Your task to perform on an android device: turn notification dots off Image 0: 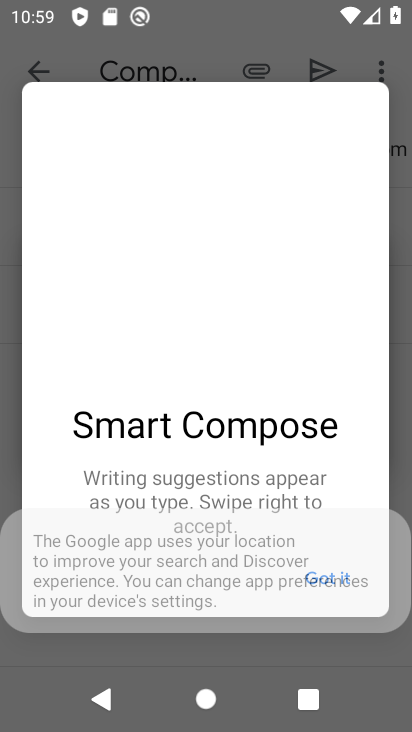
Step 0: press home button
Your task to perform on an android device: turn notification dots off Image 1: 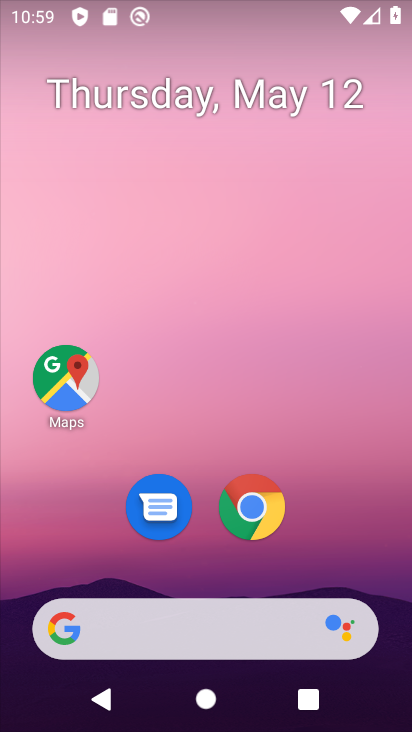
Step 1: drag from (30, 590) to (201, 87)
Your task to perform on an android device: turn notification dots off Image 2: 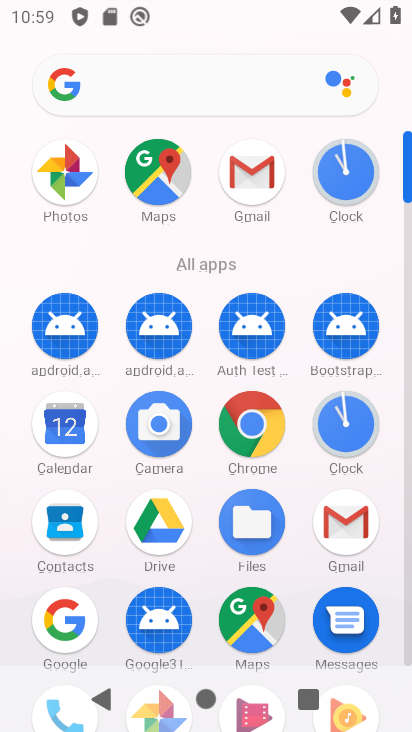
Step 2: drag from (201, 674) to (258, 401)
Your task to perform on an android device: turn notification dots off Image 3: 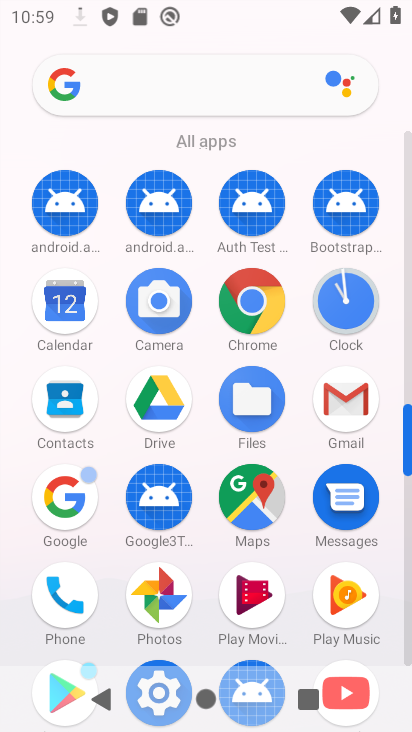
Step 3: click (157, 670)
Your task to perform on an android device: turn notification dots off Image 4: 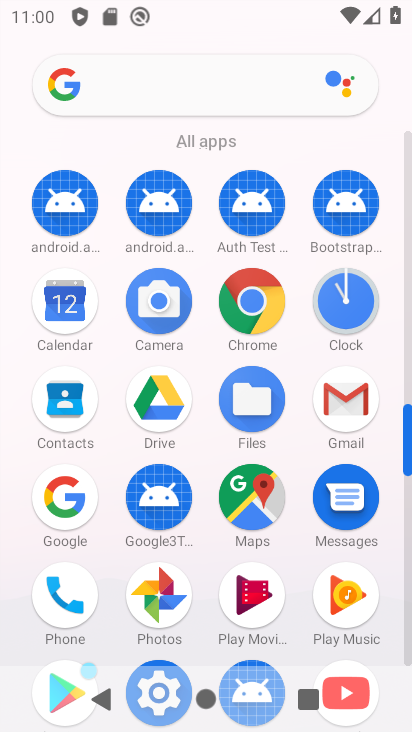
Step 4: click (170, 663)
Your task to perform on an android device: turn notification dots off Image 5: 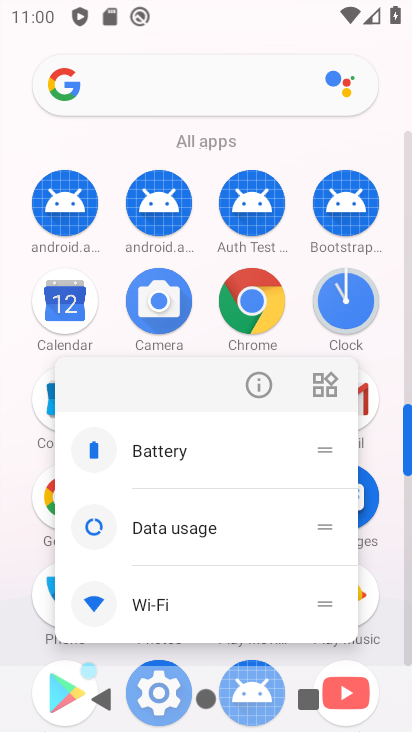
Step 5: click (148, 674)
Your task to perform on an android device: turn notification dots off Image 6: 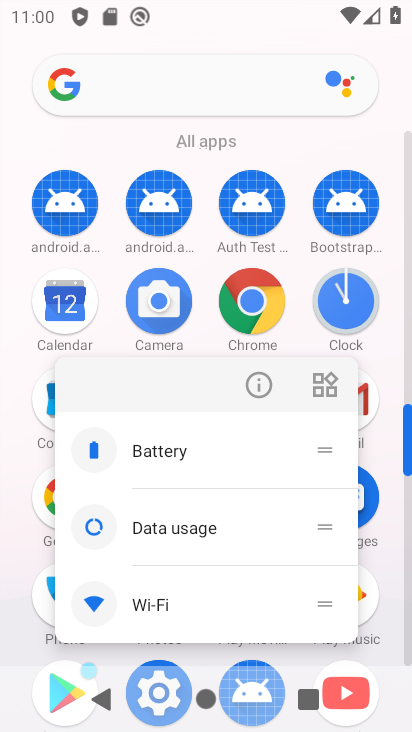
Step 6: click (152, 662)
Your task to perform on an android device: turn notification dots off Image 7: 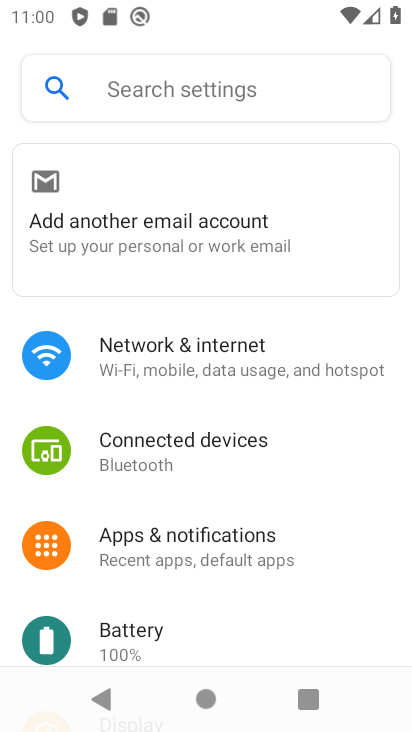
Step 7: drag from (227, 526) to (248, 445)
Your task to perform on an android device: turn notification dots off Image 8: 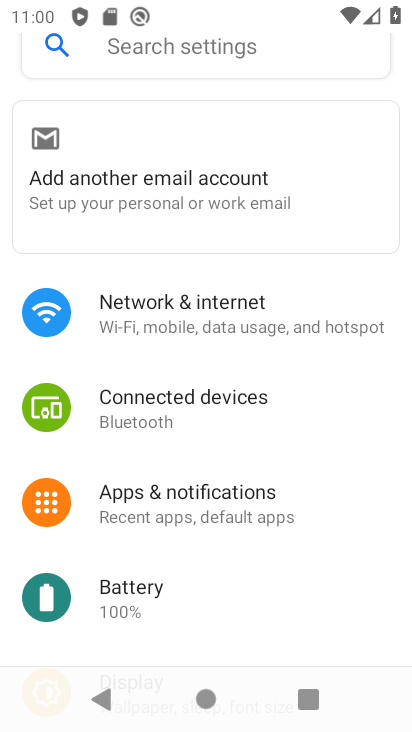
Step 8: click (217, 490)
Your task to perform on an android device: turn notification dots off Image 9: 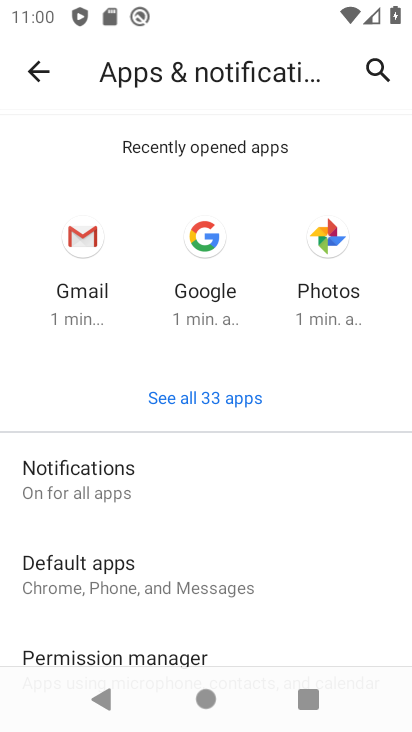
Step 9: click (196, 468)
Your task to perform on an android device: turn notification dots off Image 10: 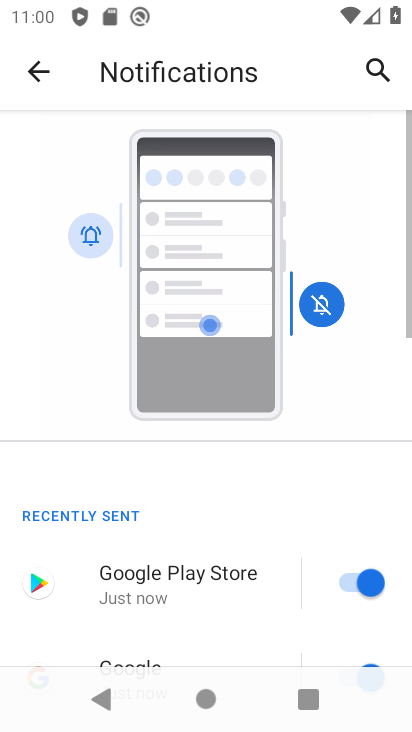
Step 10: drag from (152, 621) to (276, 185)
Your task to perform on an android device: turn notification dots off Image 11: 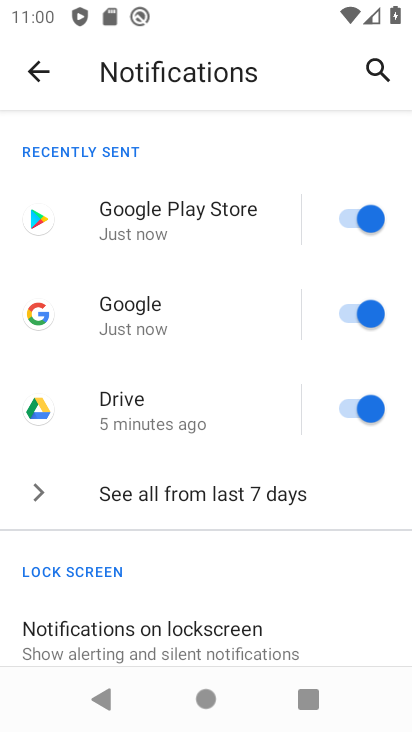
Step 11: drag from (201, 658) to (273, 264)
Your task to perform on an android device: turn notification dots off Image 12: 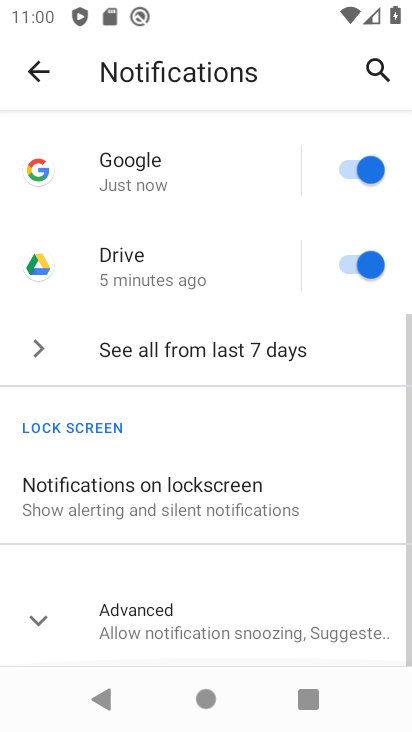
Step 12: click (185, 607)
Your task to perform on an android device: turn notification dots off Image 13: 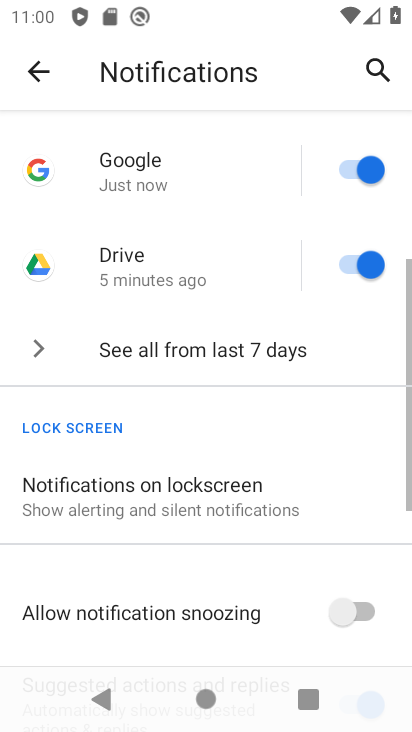
Step 13: drag from (181, 606) to (295, 179)
Your task to perform on an android device: turn notification dots off Image 14: 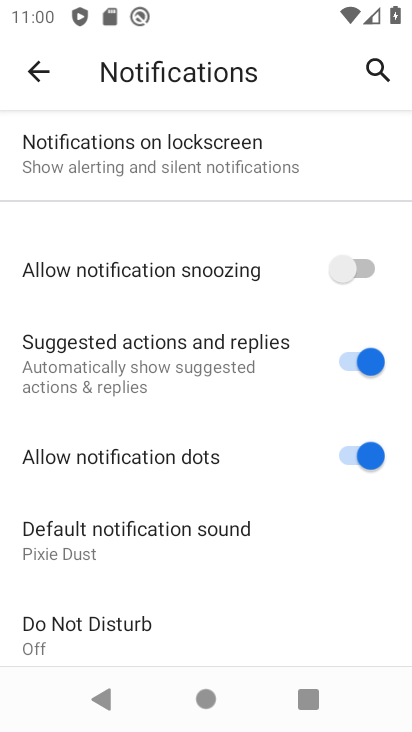
Step 14: click (349, 452)
Your task to perform on an android device: turn notification dots off Image 15: 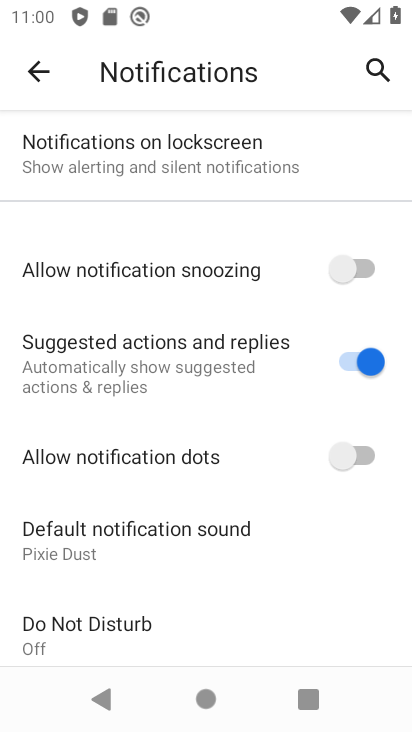
Step 15: task complete